Your task to perform on an android device: clear history in the chrome app Image 0: 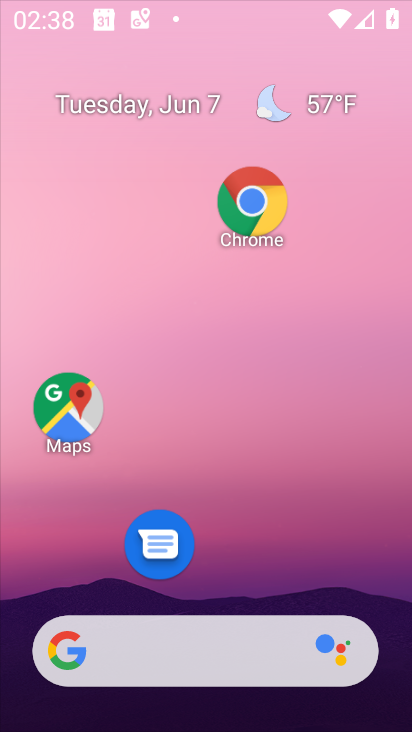
Step 0: click (230, 521)
Your task to perform on an android device: clear history in the chrome app Image 1: 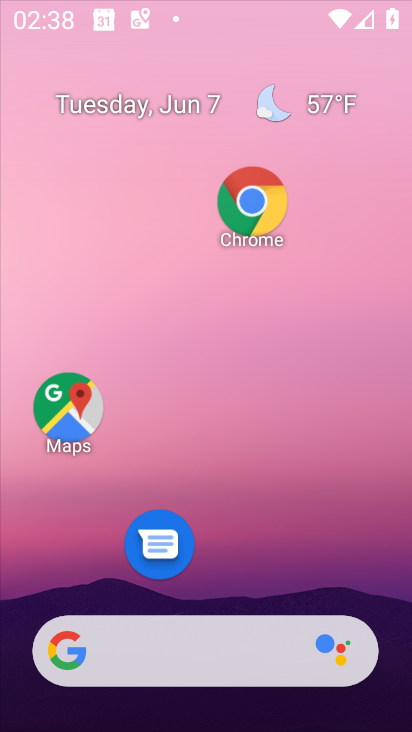
Step 1: drag from (209, 601) to (237, 214)
Your task to perform on an android device: clear history in the chrome app Image 2: 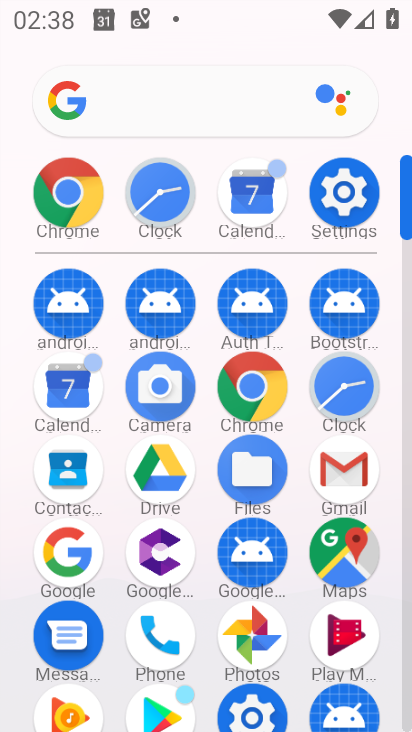
Step 2: click (246, 389)
Your task to perform on an android device: clear history in the chrome app Image 3: 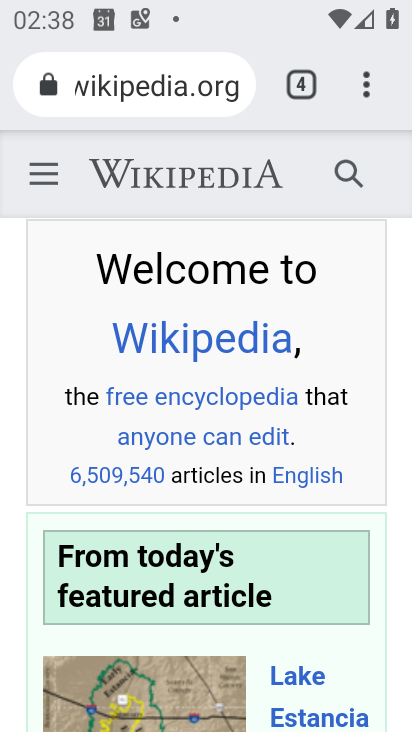
Step 3: click (378, 70)
Your task to perform on an android device: clear history in the chrome app Image 4: 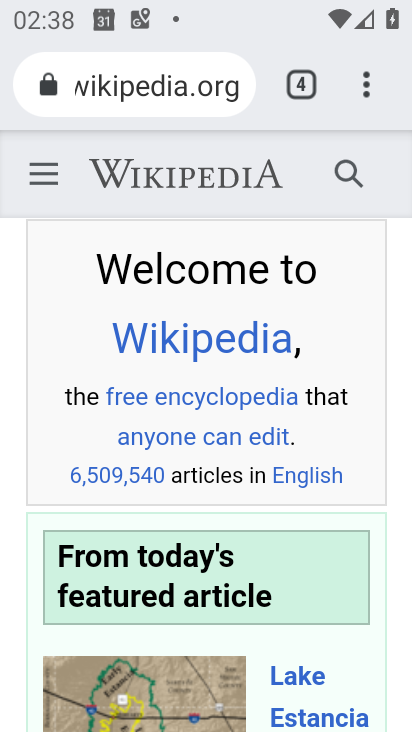
Step 4: click (357, 87)
Your task to perform on an android device: clear history in the chrome app Image 5: 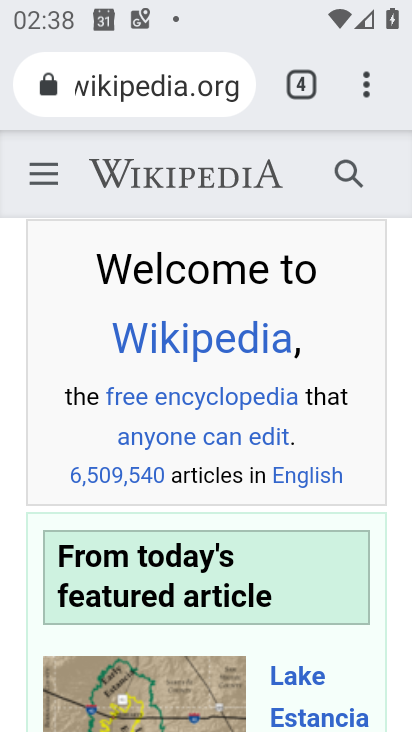
Step 5: click (357, 85)
Your task to perform on an android device: clear history in the chrome app Image 6: 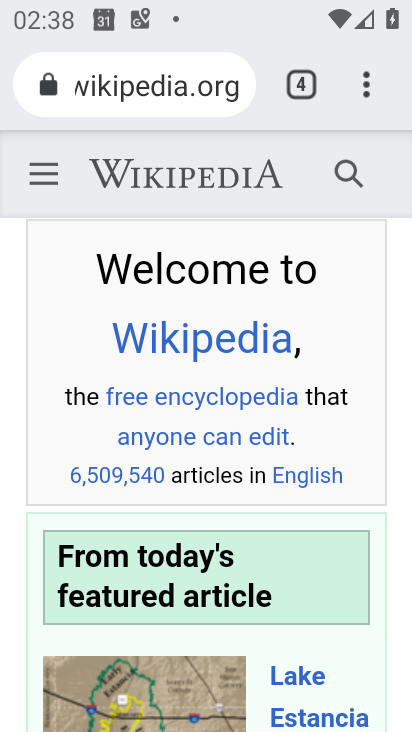
Step 6: click (365, 90)
Your task to perform on an android device: clear history in the chrome app Image 7: 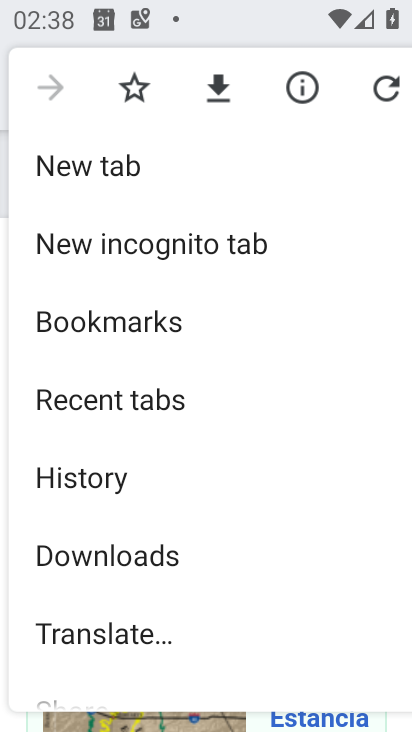
Step 7: click (122, 465)
Your task to perform on an android device: clear history in the chrome app Image 8: 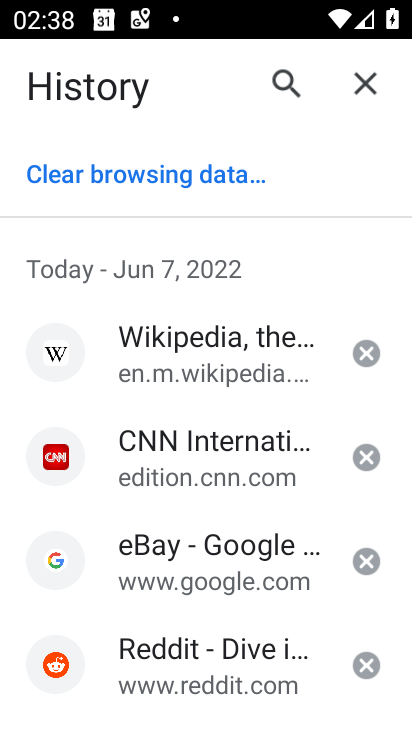
Step 8: click (154, 164)
Your task to perform on an android device: clear history in the chrome app Image 9: 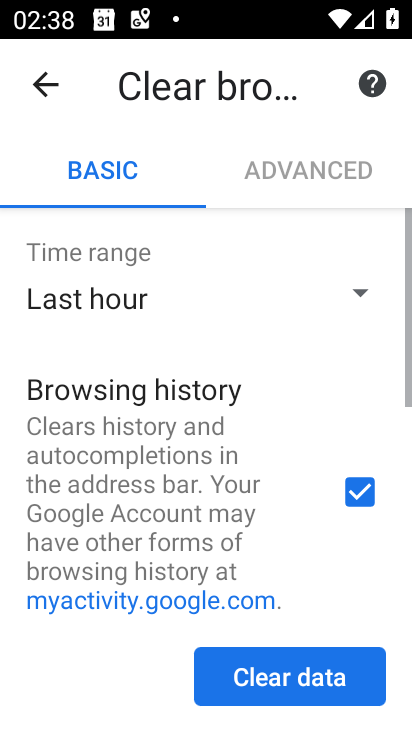
Step 9: click (247, 660)
Your task to perform on an android device: clear history in the chrome app Image 10: 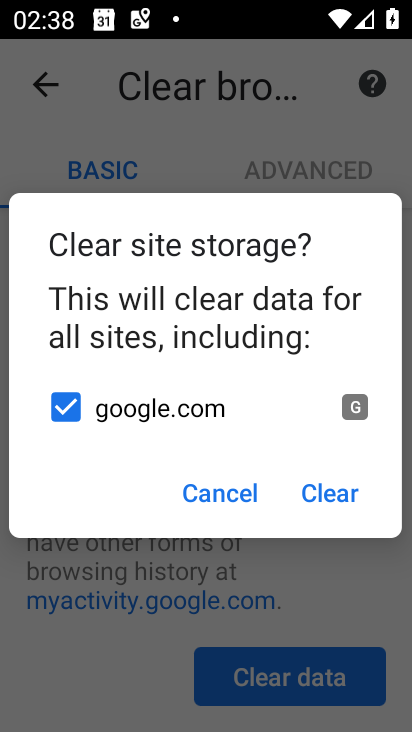
Step 10: click (321, 494)
Your task to perform on an android device: clear history in the chrome app Image 11: 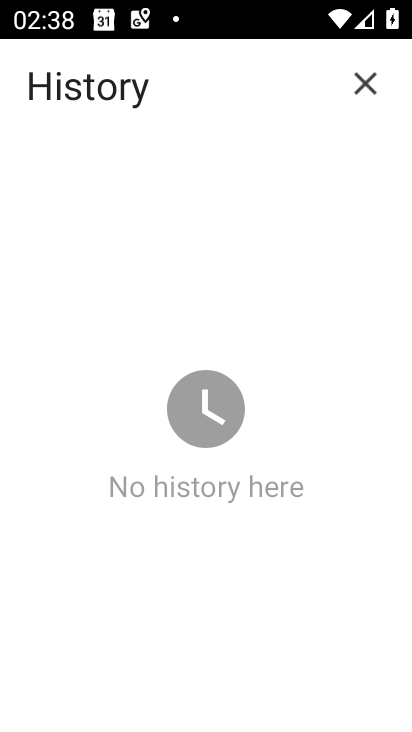
Step 11: task complete